Your task to perform on an android device: empty trash in google photos Image 0: 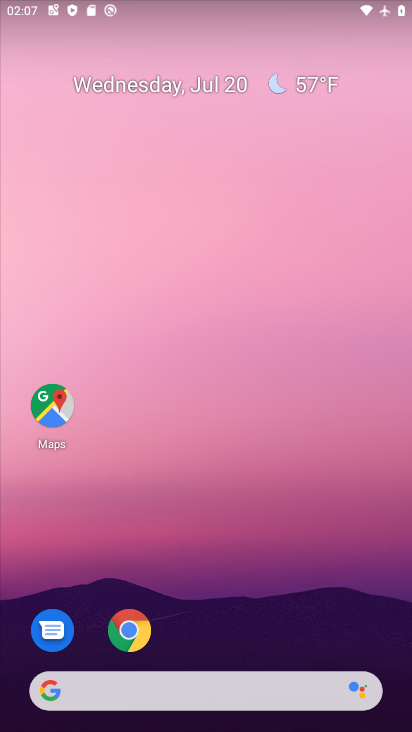
Step 0: drag from (293, 634) to (195, 224)
Your task to perform on an android device: empty trash in google photos Image 1: 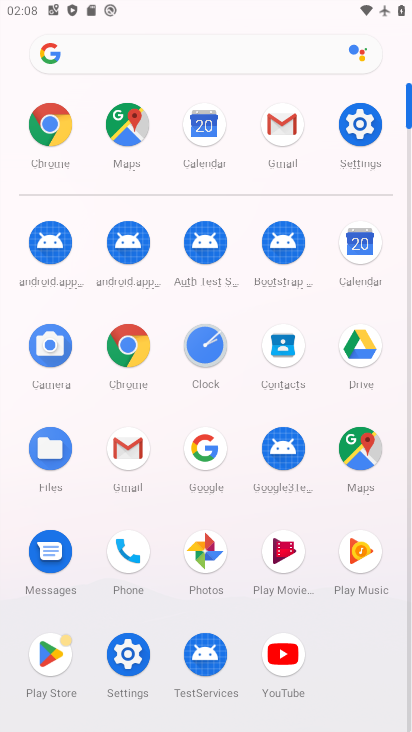
Step 1: click (206, 560)
Your task to perform on an android device: empty trash in google photos Image 2: 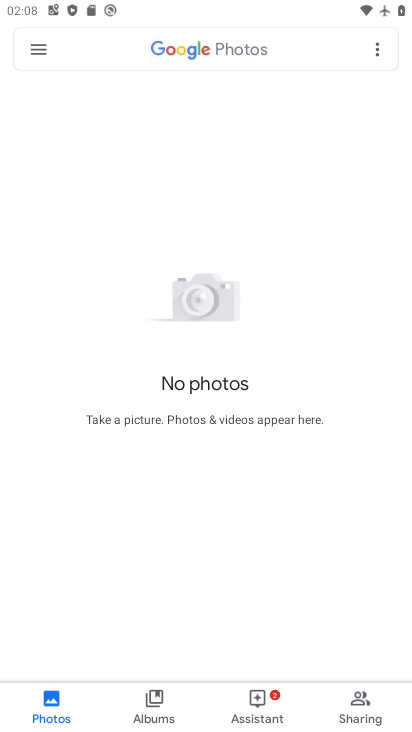
Step 2: click (41, 44)
Your task to perform on an android device: empty trash in google photos Image 3: 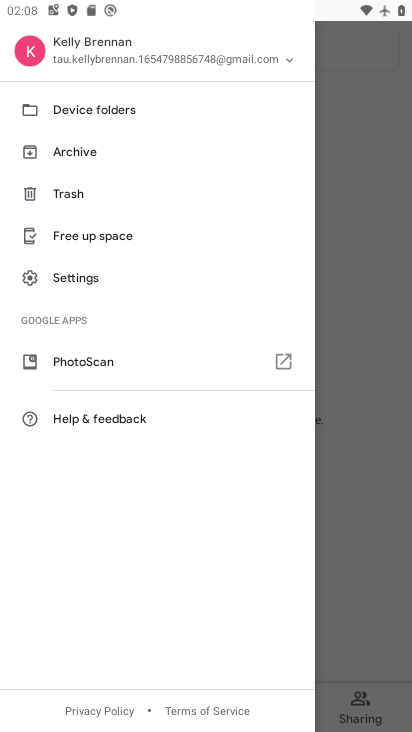
Step 3: click (77, 191)
Your task to perform on an android device: empty trash in google photos Image 4: 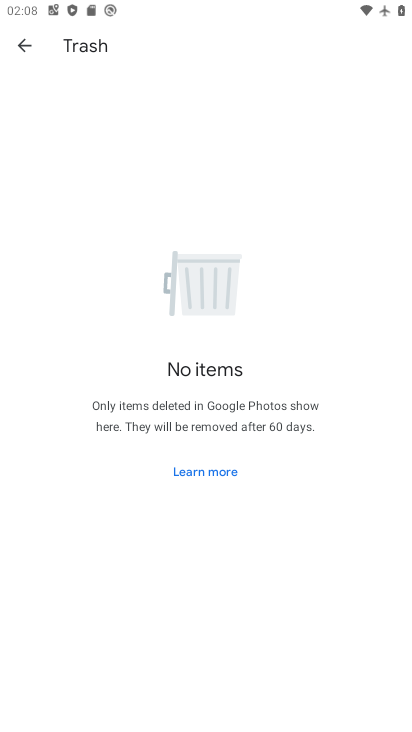
Step 4: task complete